Your task to perform on an android device: What's the news this week? Image 0: 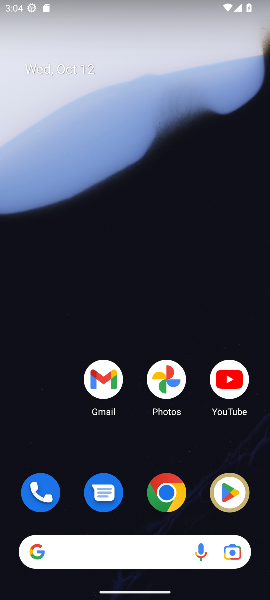
Step 0: click (157, 493)
Your task to perform on an android device: What's the news this week? Image 1: 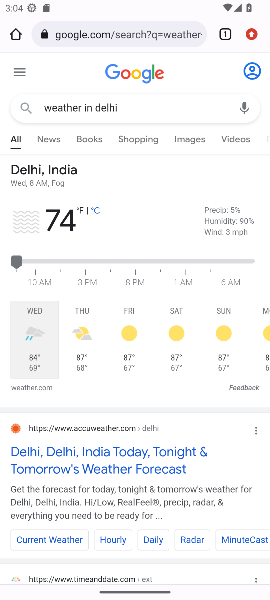
Step 1: click (126, 35)
Your task to perform on an android device: What's the news this week? Image 2: 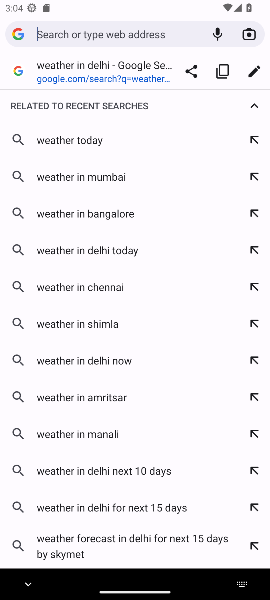
Step 2: type "news this week"
Your task to perform on an android device: What's the news this week? Image 3: 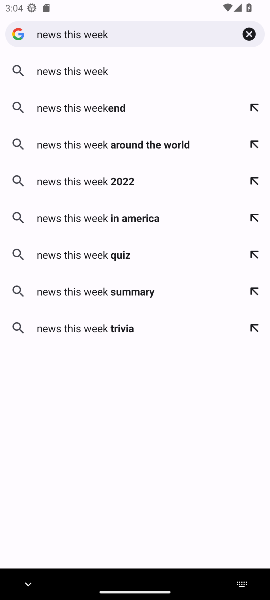
Step 3: click (57, 81)
Your task to perform on an android device: What's the news this week? Image 4: 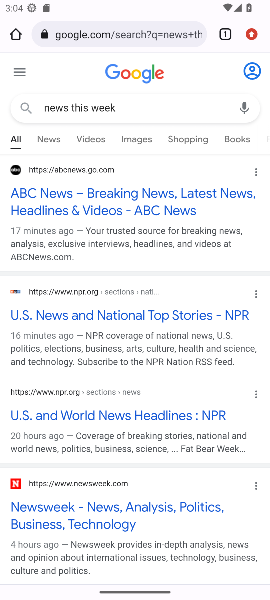
Step 4: click (54, 138)
Your task to perform on an android device: What's the news this week? Image 5: 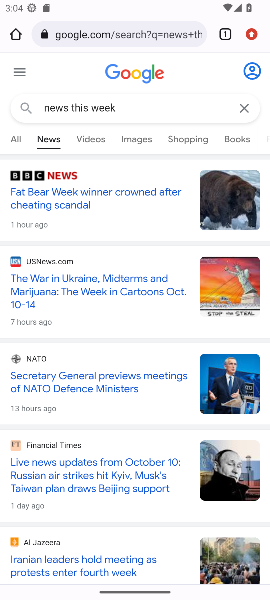
Step 5: drag from (80, 384) to (97, 209)
Your task to perform on an android device: What's the news this week? Image 6: 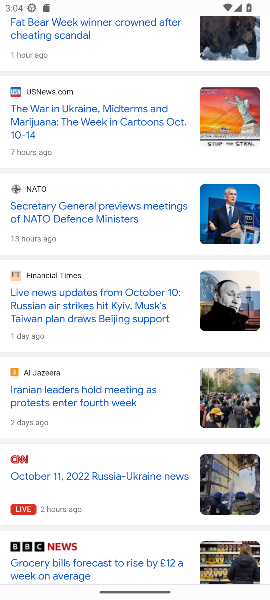
Step 6: click (73, 213)
Your task to perform on an android device: What's the news this week? Image 7: 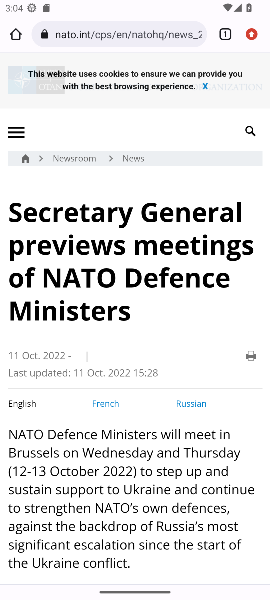
Step 7: task complete